Your task to perform on an android device: Do I have any events today? Image 0: 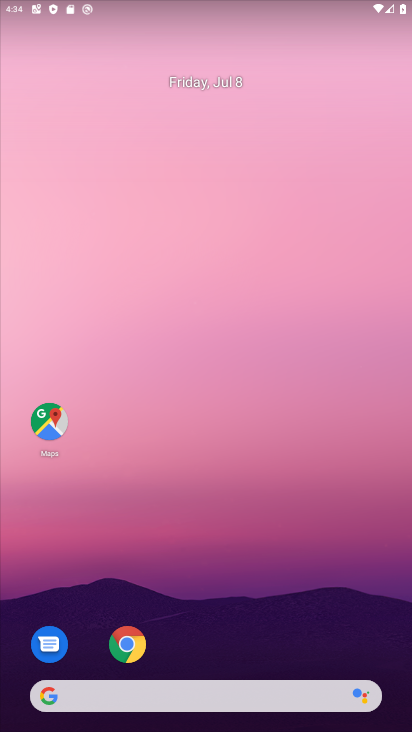
Step 0: drag from (211, 644) to (247, 187)
Your task to perform on an android device: Do I have any events today? Image 1: 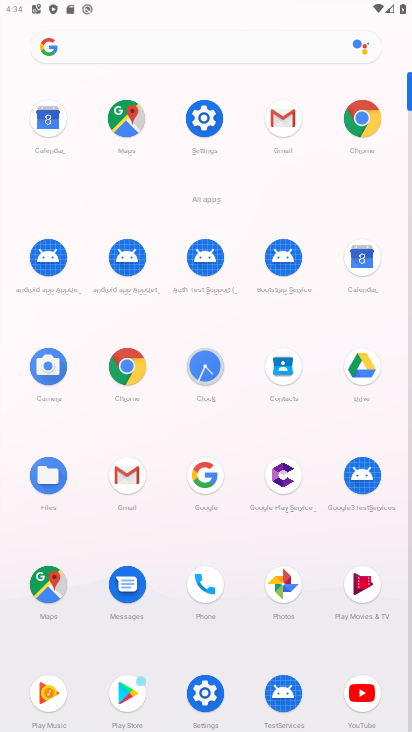
Step 1: click (361, 252)
Your task to perform on an android device: Do I have any events today? Image 2: 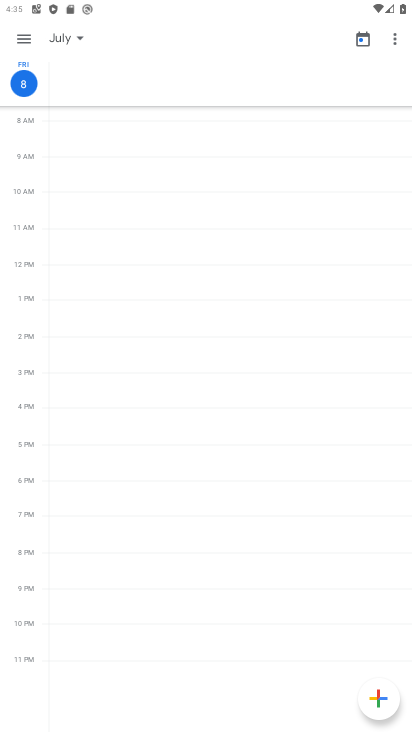
Step 2: task complete